Your task to perform on an android device: read, delete, or share a saved page in the chrome app Image 0: 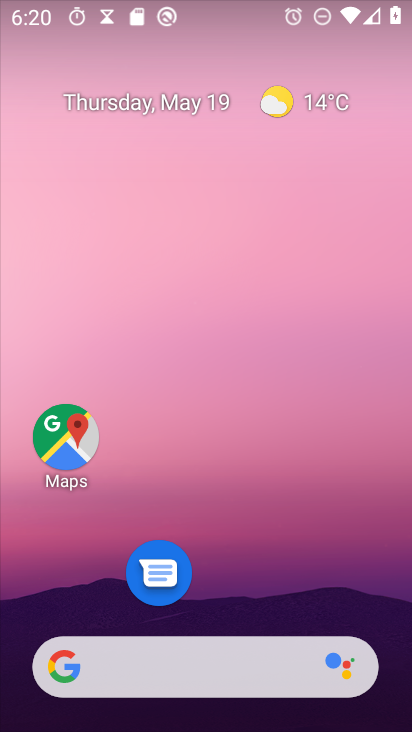
Step 0: drag from (251, 591) to (236, 178)
Your task to perform on an android device: read, delete, or share a saved page in the chrome app Image 1: 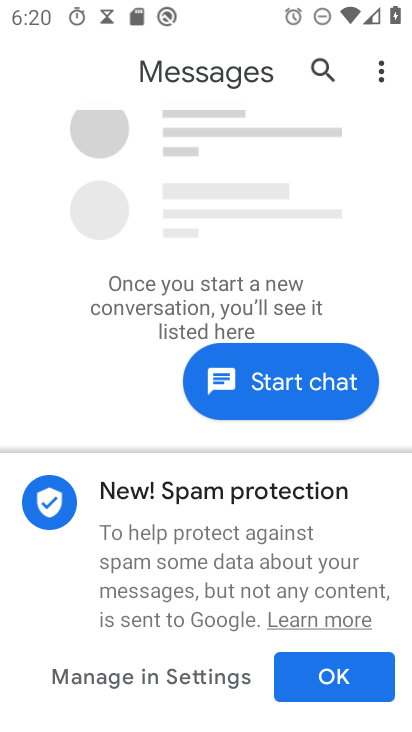
Step 1: press home button
Your task to perform on an android device: read, delete, or share a saved page in the chrome app Image 2: 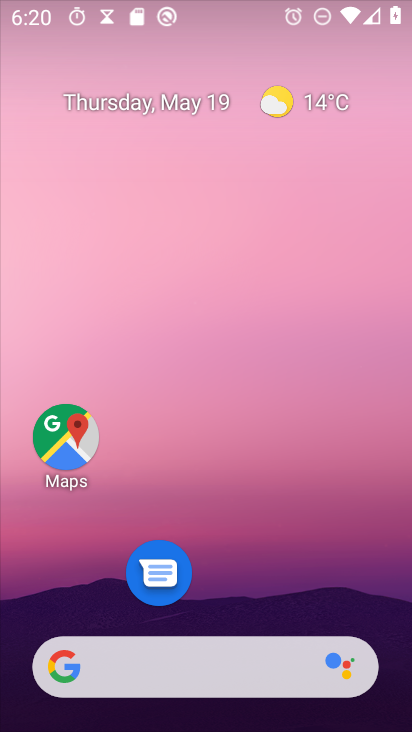
Step 2: drag from (310, 543) to (276, 38)
Your task to perform on an android device: read, delete, or share a saved page in the chrome app Image 3: 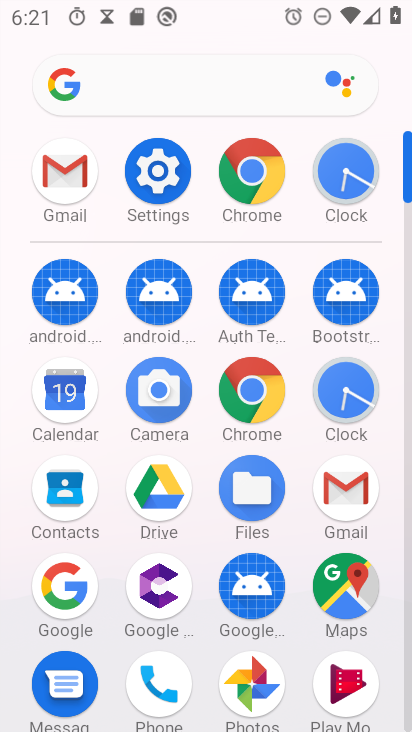
Step 3: click (346, 399)
Your task to perform on an android device: read, delete, or share a saved page in the chrome app Image 4: 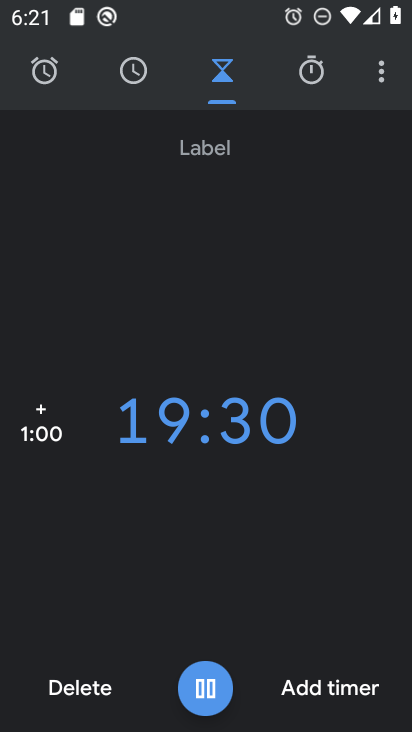
Step 4: press home button
Your task to perform on an android device: read, delete, or share a saved page in the chrome app Image 5: 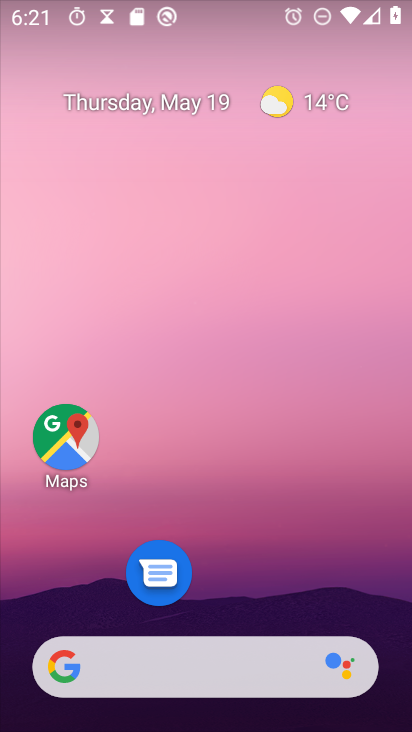
Step 5: drag from (232, 585) to (218, 97)
Your task to perform on an android device: read, delete, or share a saved page in the chrome app Image 6: 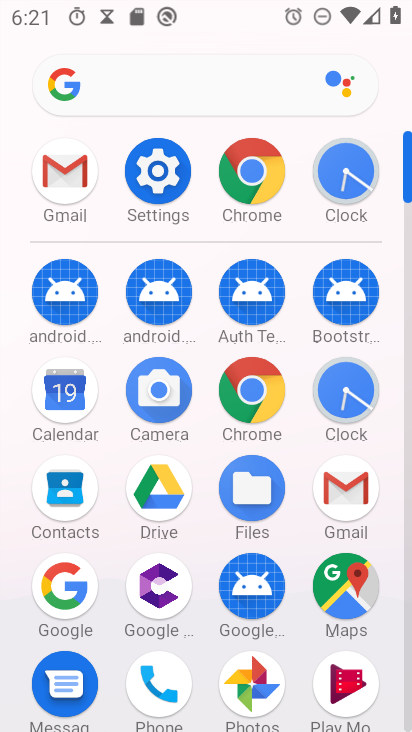
Step 6: click (262, 406)
Your task to perform on an android device: read, delete, or share a saved page in the chrome app Image 7: 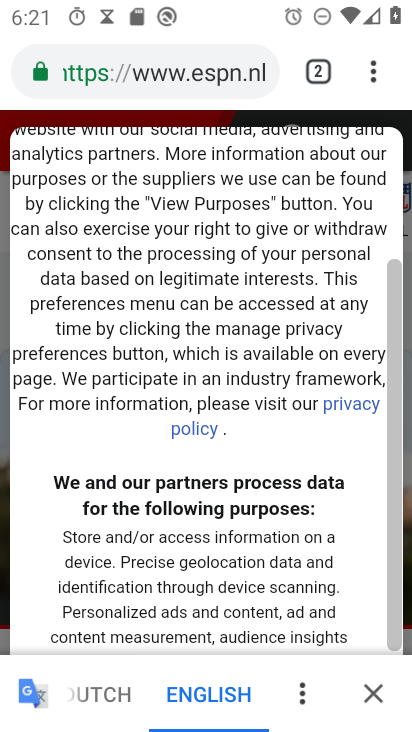
Step 7: click (366, 76)
Your task to perform on an android device: read, delete, or share a saved page in the chrome app Image 8: 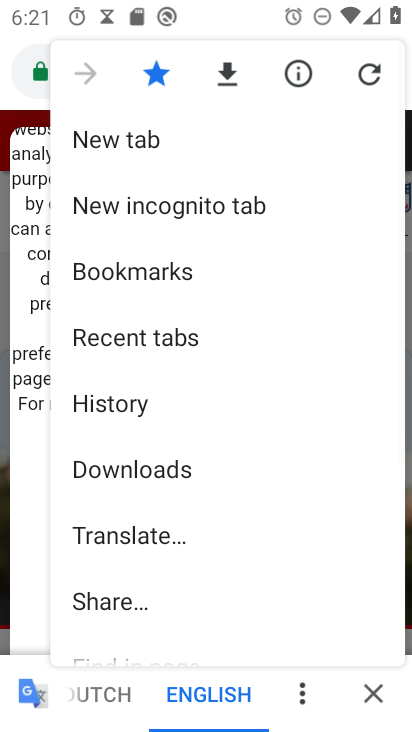
Step 8: task complete